Your task to perform on an android device: Open Youtube and go to "Your channel" Image 0: 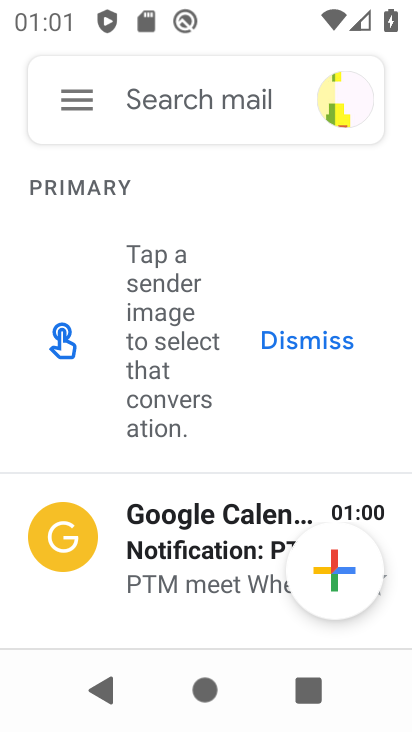
Step 0: press home button
Your task to perform on an android device: Open Youtube and go to "Your channel" Image 1: 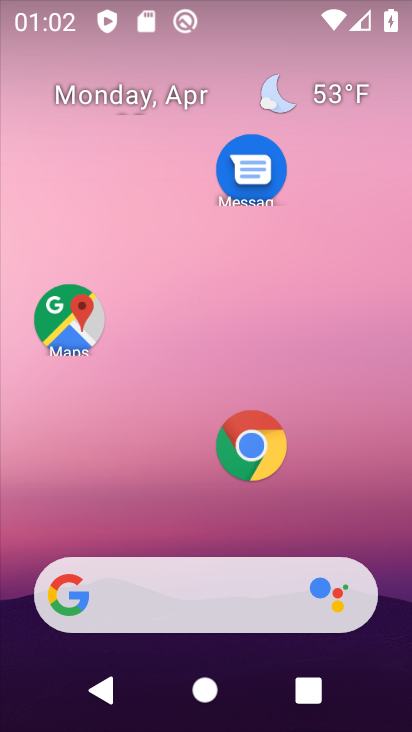
Step 1: drag from (168, 522) to (267, 10)
Your task to perform on an android device: Open Youtube and go to "Your channel" Image 2: 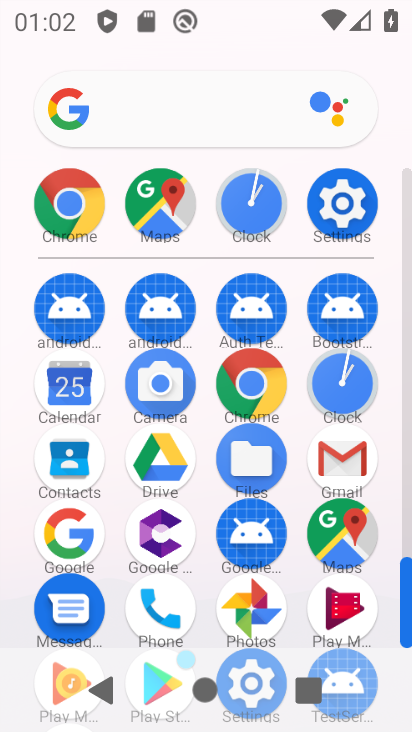
Step 2: drag from (288, 566) to (298, 132)
Your task to perform on an android device: Open Youtube and go to "Your channel" Image 3: 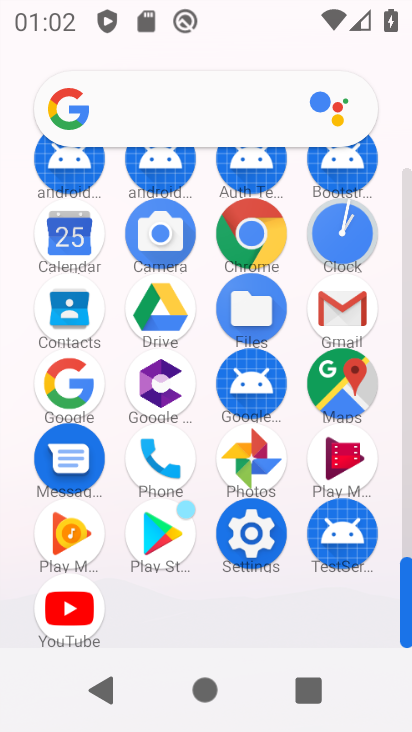
Step 3: click (85, 616)
Your task to perform on an android device: Open Youtube and go to "Your channel" Image 4: 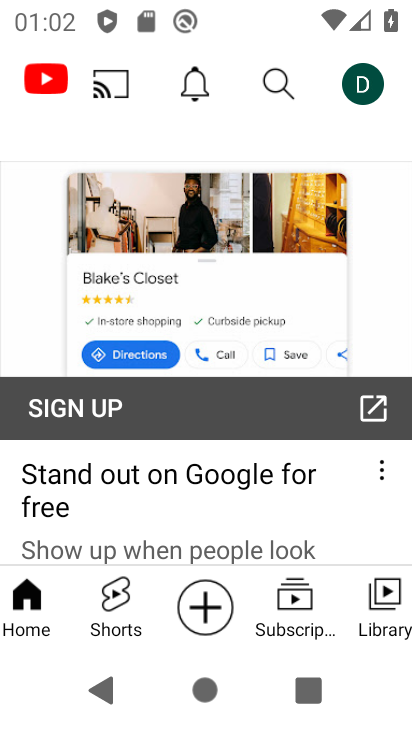
Step 4: click (364, 81)
Your task to perform on an android device: Open Youtube and go to "Your channel" Image 5: 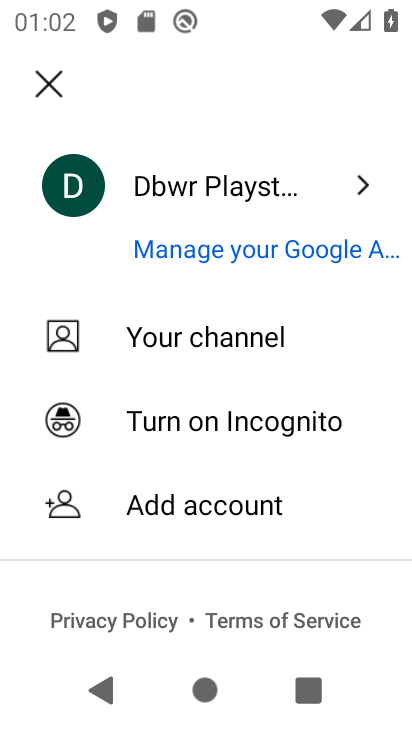
Step 5: click (205, 344)
Your task to perform on an android device: Open Youtube and go to "Your channel" Image 6: 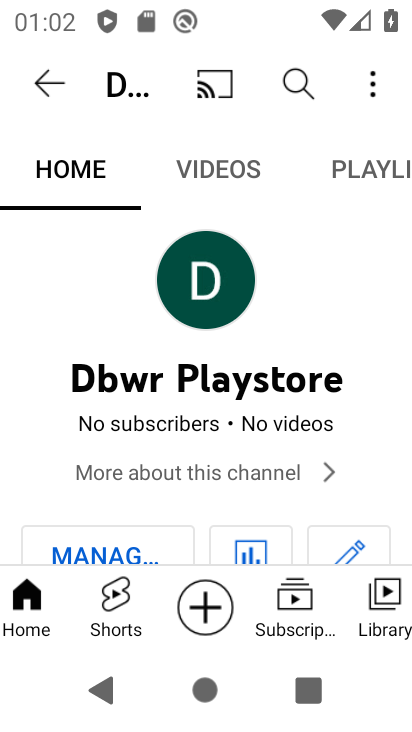
Step 6: task complete